Your task to perform on an android device: change your default location settings in chrome Image 0: 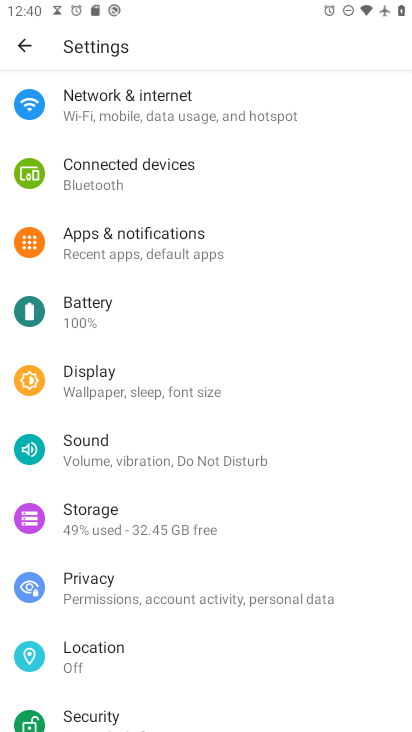
Step 0: press home button
Your task to perform on an android device: change your default location settings in chrome Image 1: 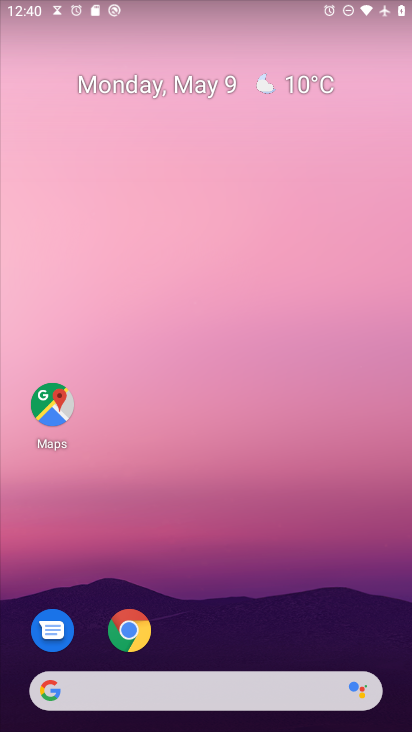
Step 1: drag from (173, 704) to (346, 75)
Your task to perform on an android device: change your default location settings in chrome Image 2: 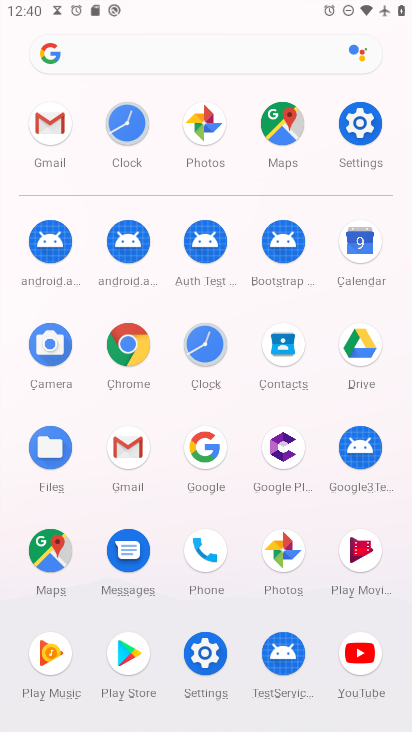
Step 2: click (135, 347)
Your task to perform on an android device: change your default location settings in chrome Image 3: 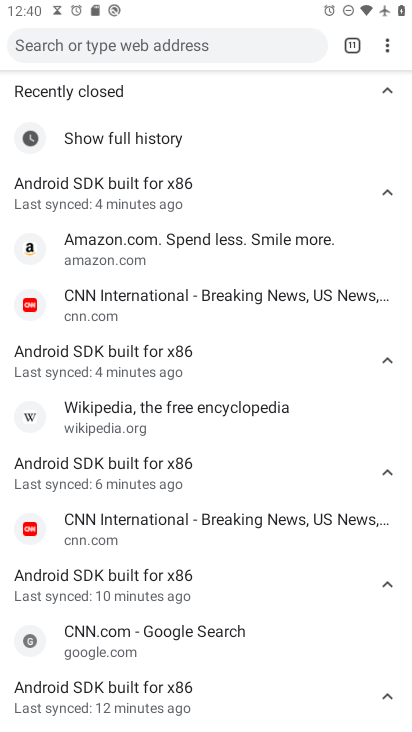
Step 3: drag from (387, 48) to (238, 381)
Your task to perform on an android device: change your default location settings in chrome Image 4: 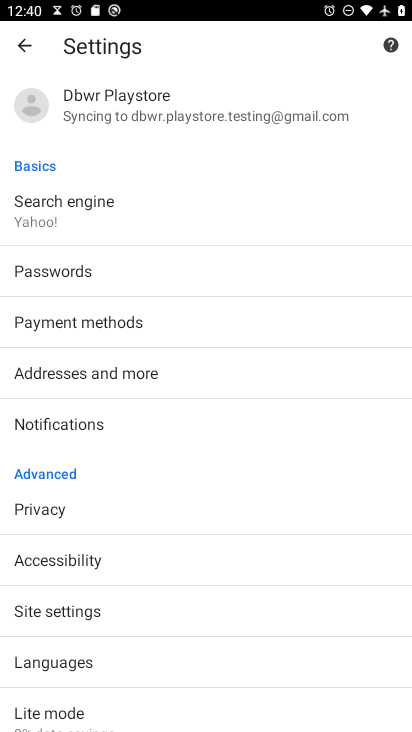
Step 4: click (109, 606)
Your task to perform on an android device: change your default location settings in chrome Image 5: 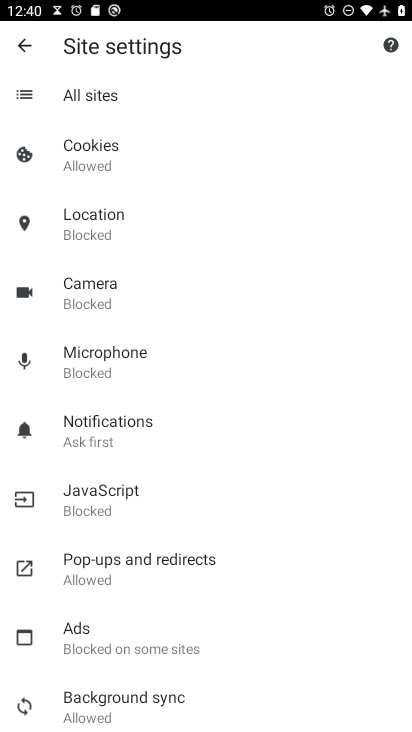
Step 5: click (143, 225)
Your task to perform on an android device: change your default location settings in chrome Image 6: 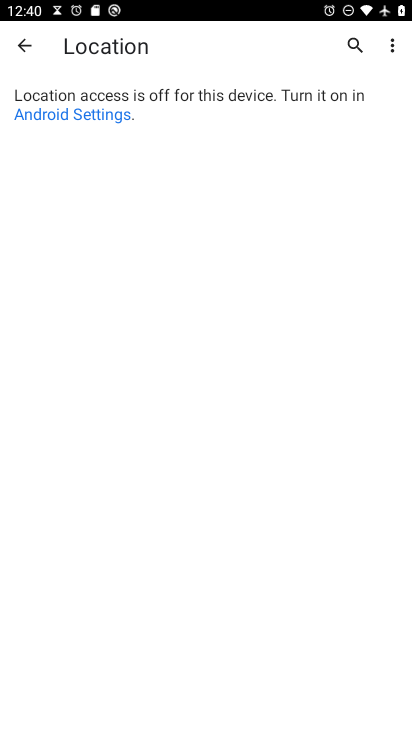
Step 6: click (119, 115)
Your task to perform on an android device: change your default location settings in chrome Image 7: 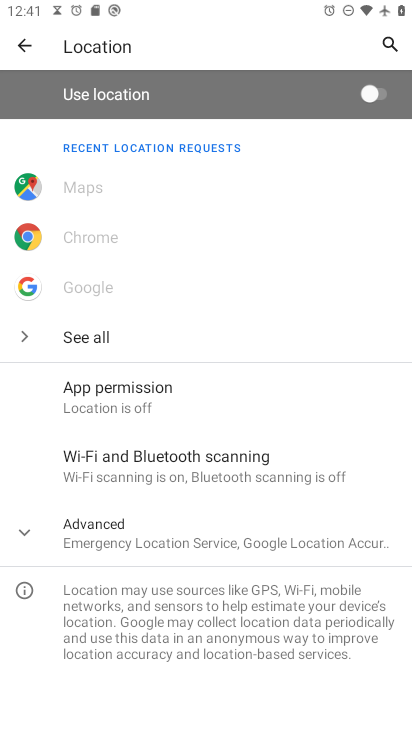
Step 7: click (381, 90)
Your task to perform on an android device: change your default location settings in chrome Image 8: 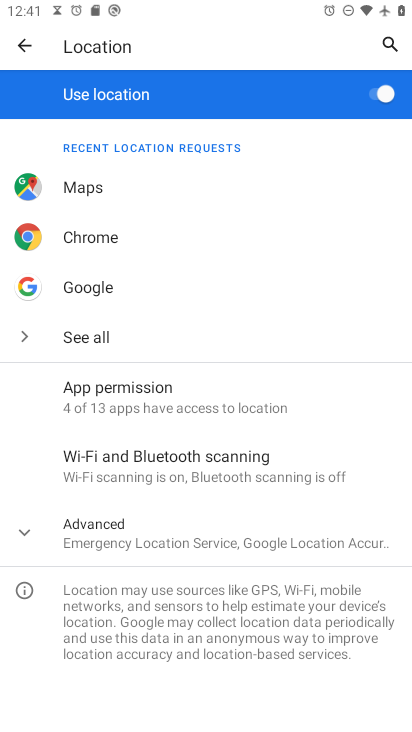
Step 8: task complete